Your task to perform on an android device: find which apps use the phone's location Image 0: 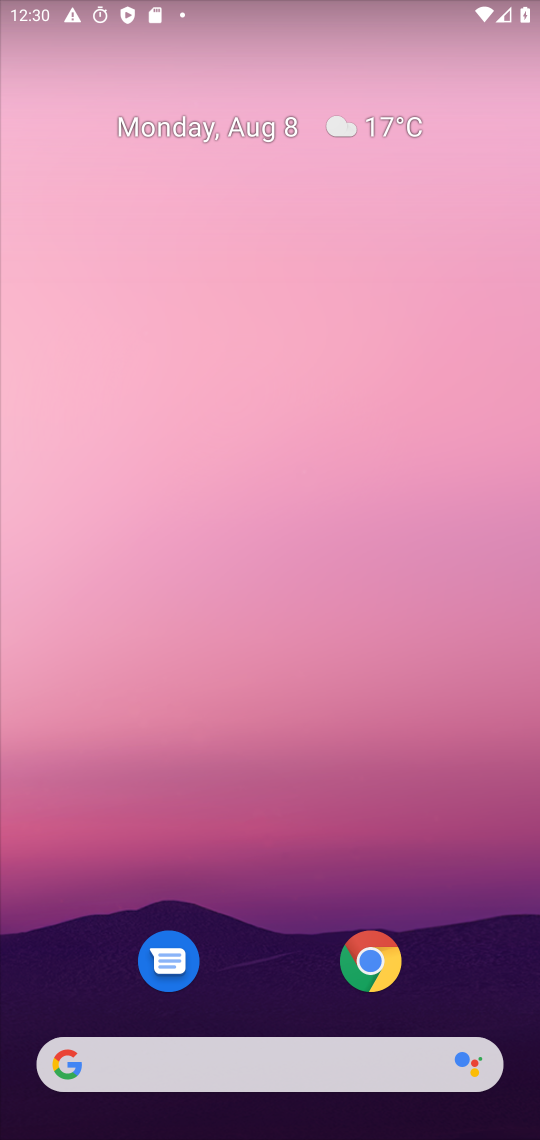
Step 0: drag from (291, 1055) to (313, 105)
Your task to perform on an android device: find which apps use the phone's location Image 1: 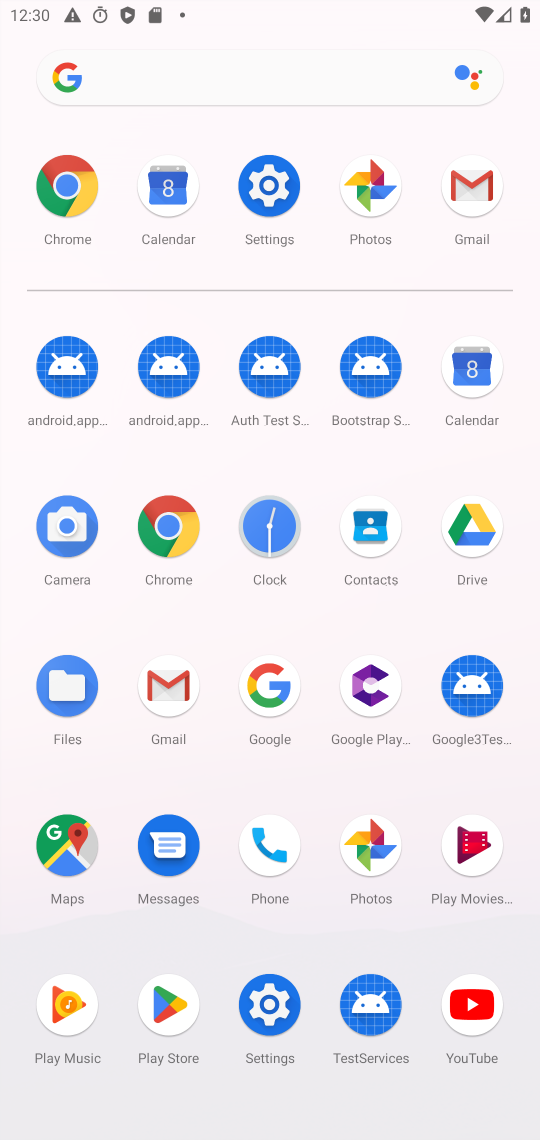
Step 1: click (263, 201)
Your task to perform on an android device: find which apps use the phone's location Image 2: 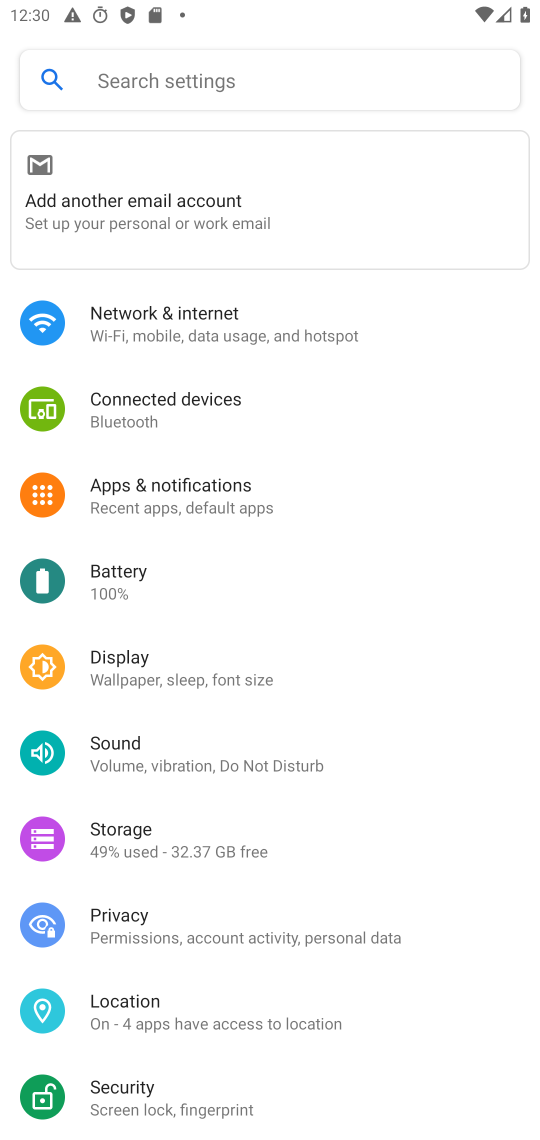
Step 2: click (172, 1017)
Your task to perform on an android device: find which apps use the phone's location Image 3: 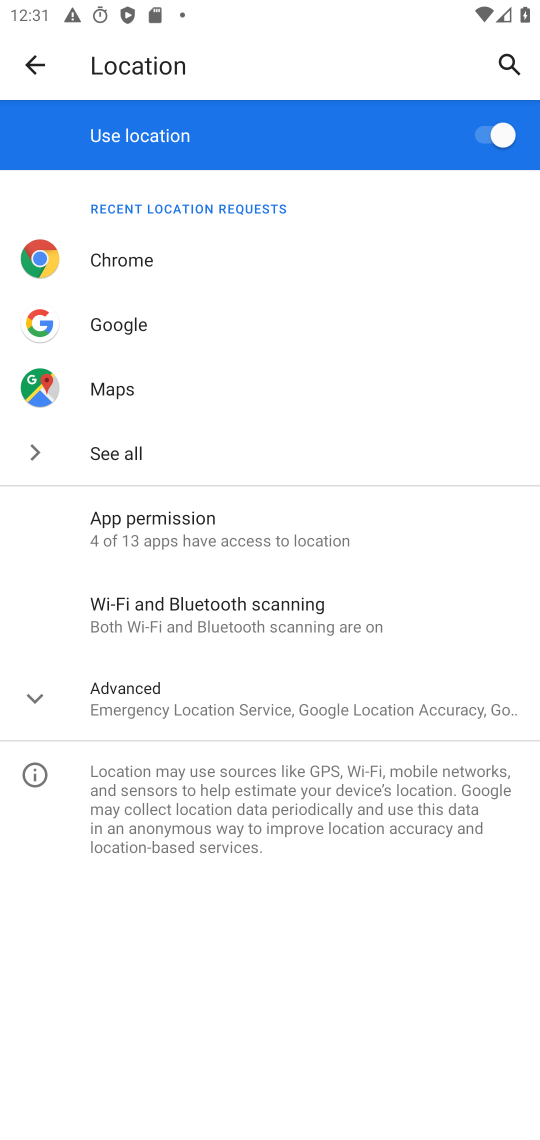
Step 3: click (315, 697)
Your task to perform on an android device: find which apps use the phone's location Image 4: 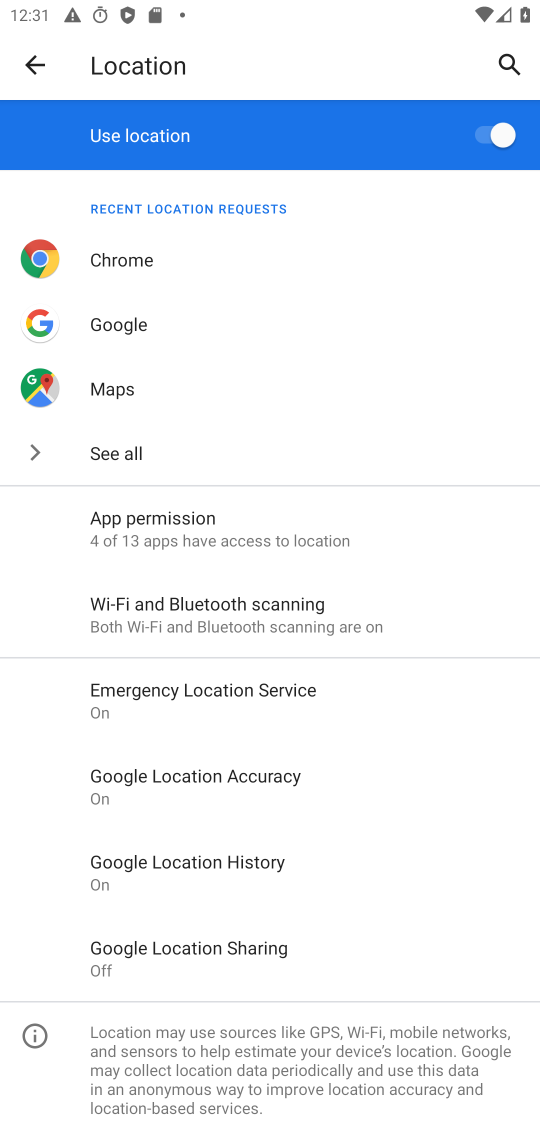
Step 4: click (284, 519)
Your task to perform on an android device: find which apps use the phone's location Image 5: 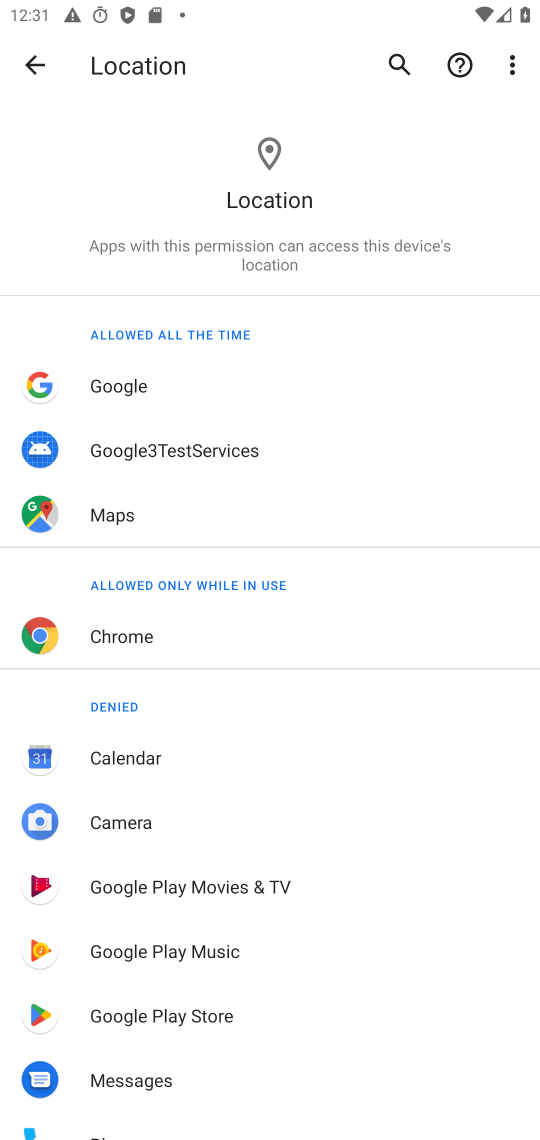
Step 5: click (187, 403)
Your task to perform on an android device: find which apps use the phone's location Image 6: 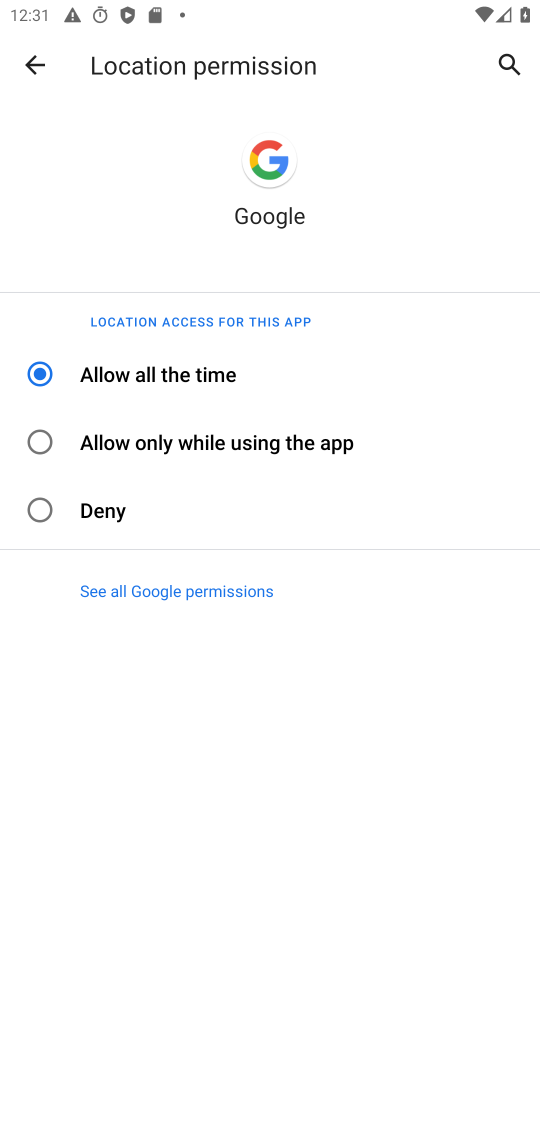
Step 6: task complete